Your task to perform on an android device: Empty the shopping cart on costco. Add razer blade to the cart on costco Image 0: 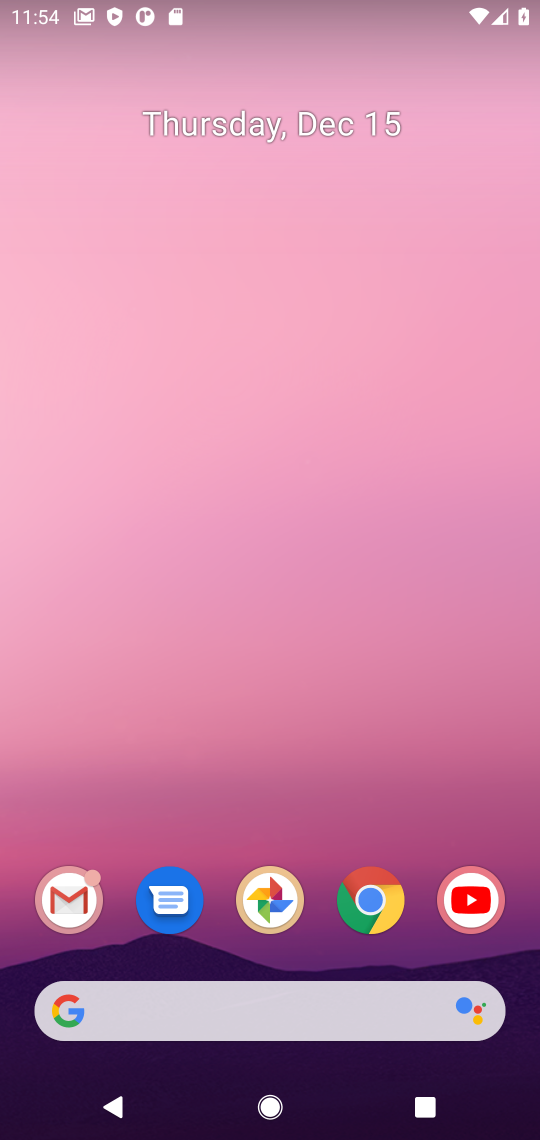
Step 0: click (372, 896)
Your task to perform on an android device: Empty the shopping cart on costco. Add razer blade to the cart on costco Image 1: 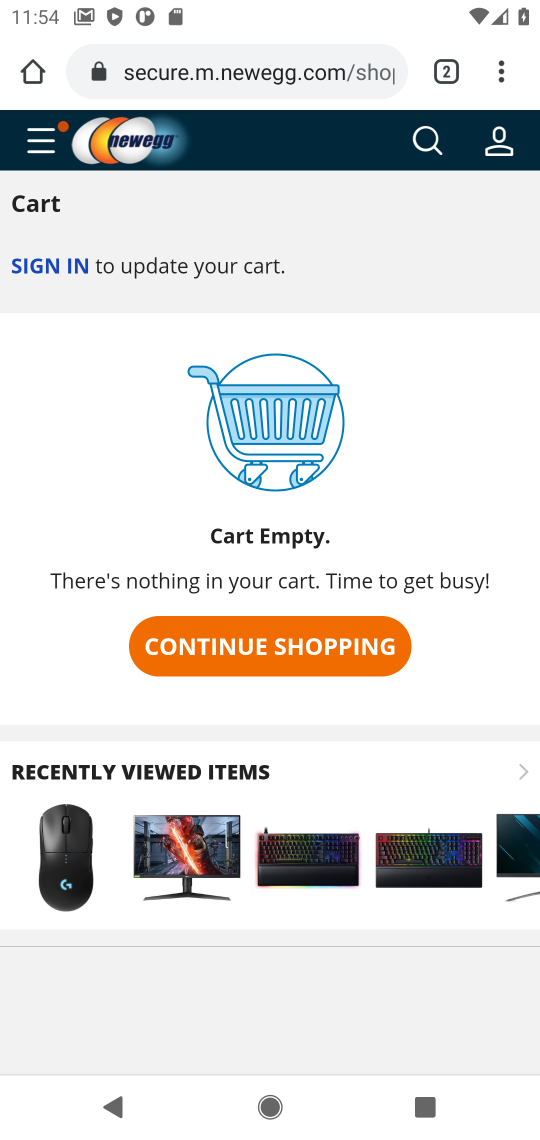
Step 1: click (24, 62)
Your task to perform on an android device: Empty the shopping cart on costco. Add razer blade to the cart on costco Image 2: 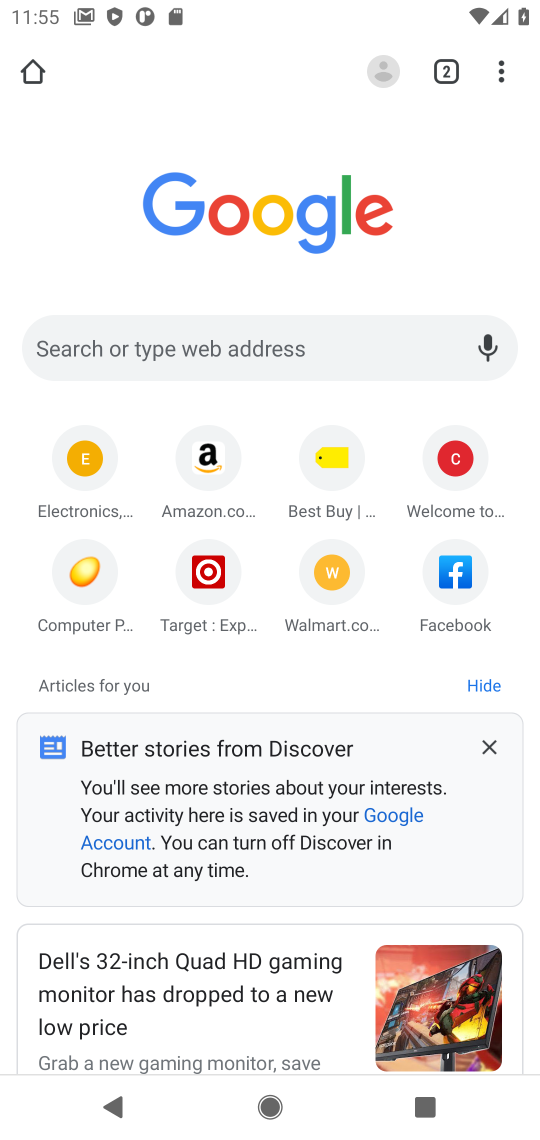
Step 2: click (263, 334)
Your task to perform on an android device: Empty the shopping cart on costco. Add razer blade to the cart on costco Image 3: 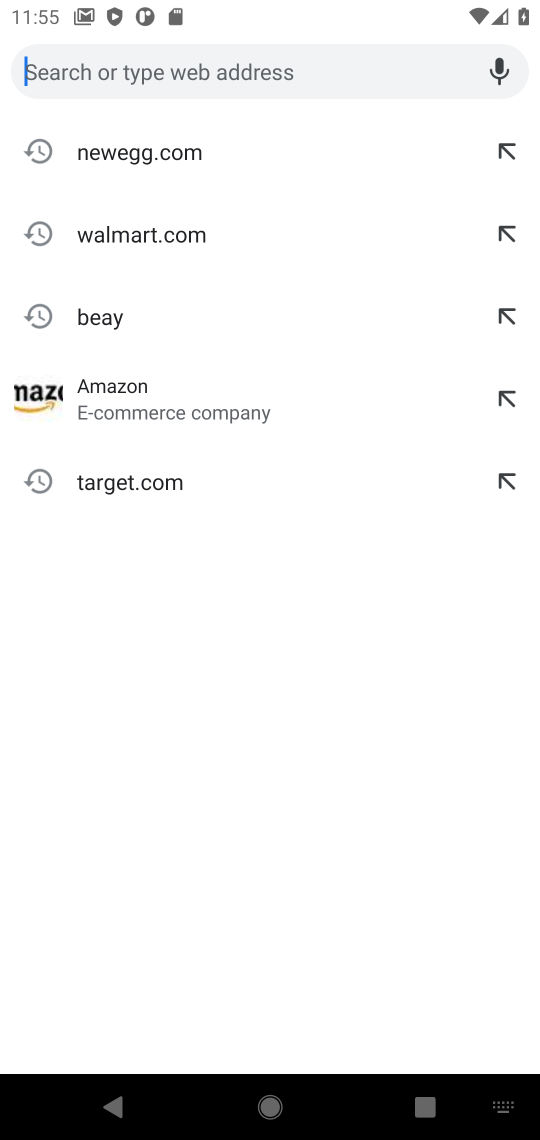
Step 3: press enter
Your task to perform on an android device: Empty the shopping cart on costco. Add razer blade to the cart on costco Image 4: 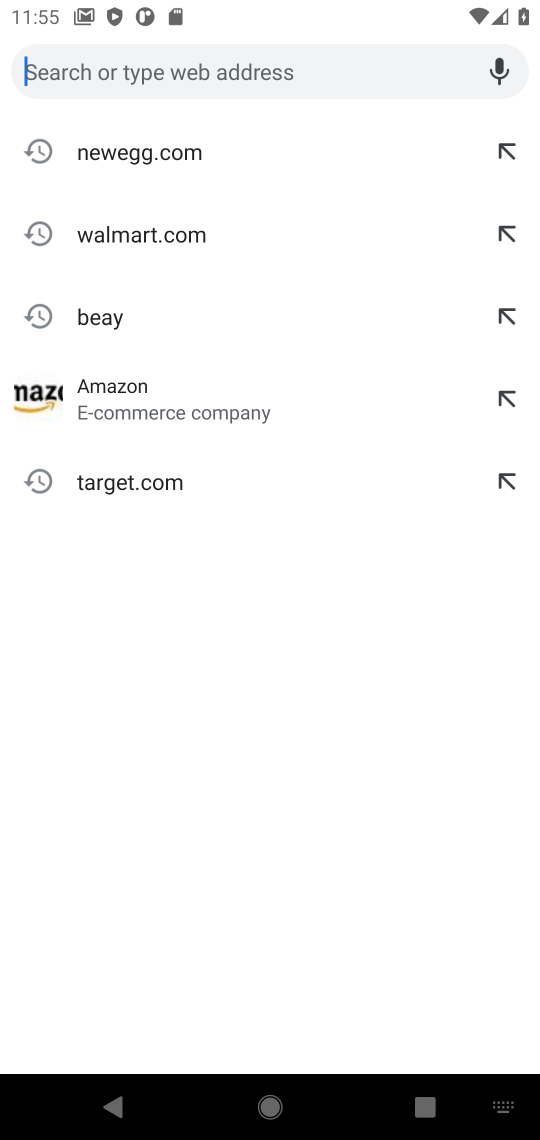
Step 4: type "costco"
Your task to perform on an android device: Empty the shopping cart on costco. Add razer blade to the cart on costco Image 5: 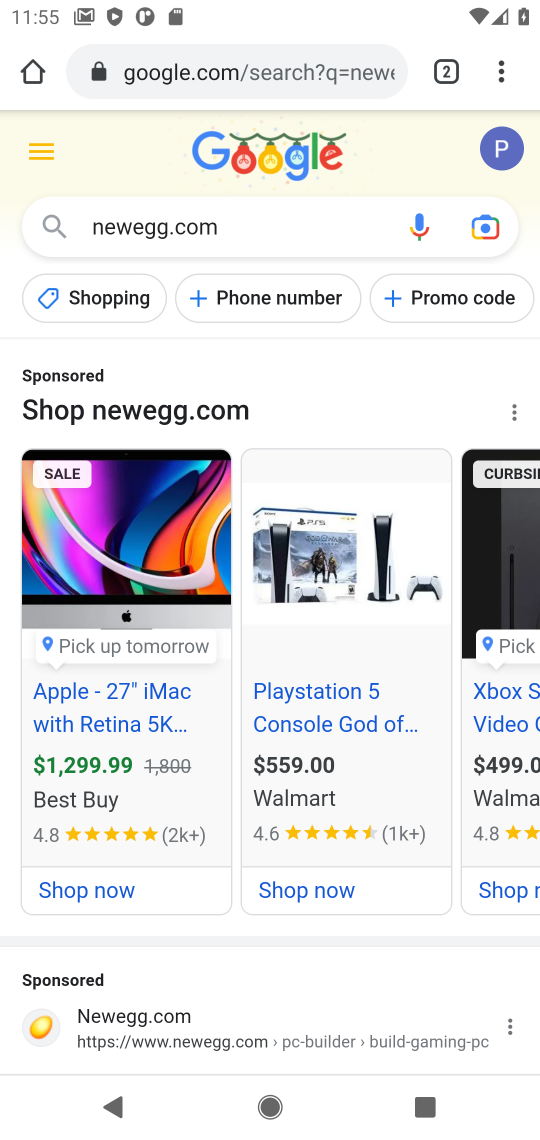
Step 5: click (203, 57)
Your task to perform on an android device: Empty the shopping cart on costco. Add razer blade to the cart on costco Image 6: 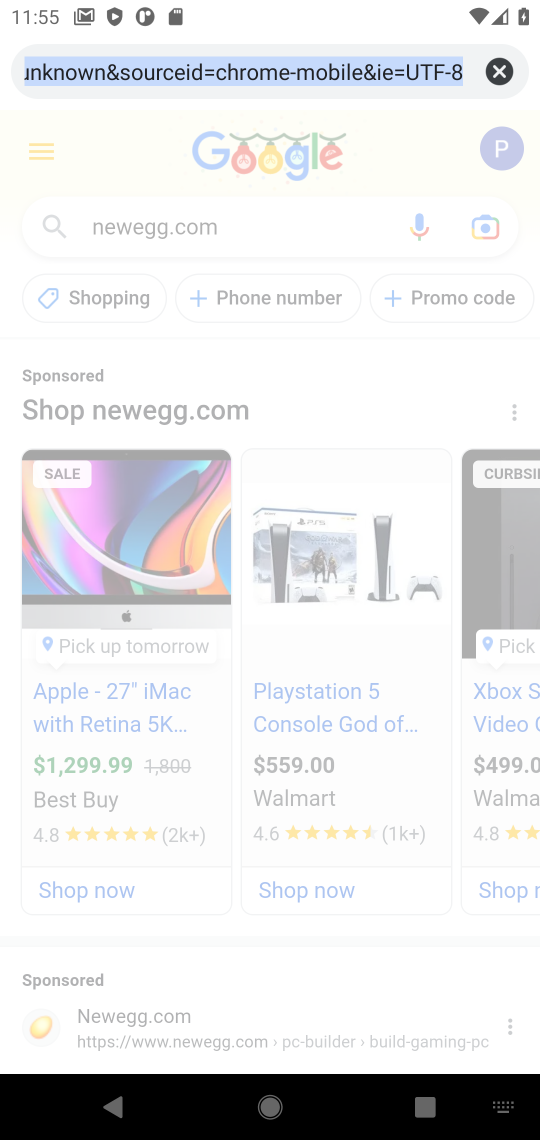
Step 6: press enter
Your task to perform on an android device: Empty the shopping cart on costco. Add razer blade to the cart on costco Image 7: 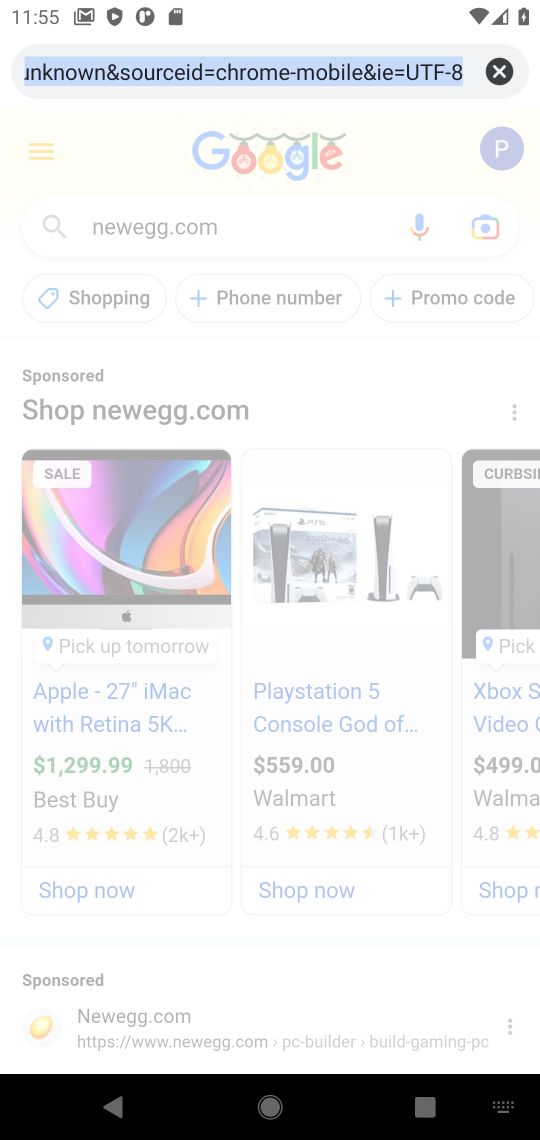
Step 7: type "costco"
Your task to perform on an android device: Empty the shopping cart on costco. Add razer blade to the cart on costco Image 8: 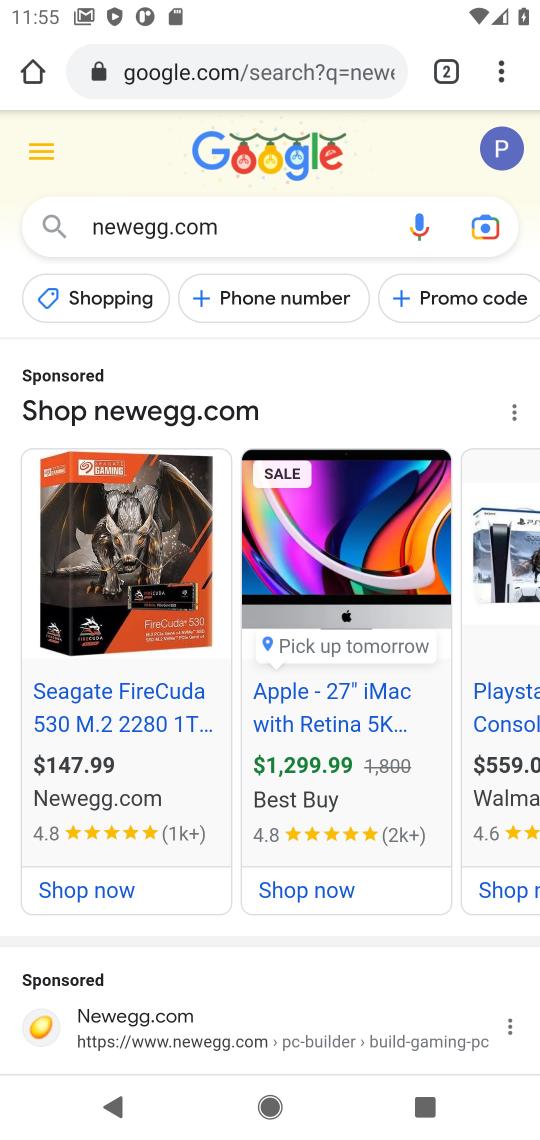
Step 8: click (208, 62)
Your task to perform on an android device: Empty the shopping cart on costco. Add razer blade to the cart on costco Image 9: 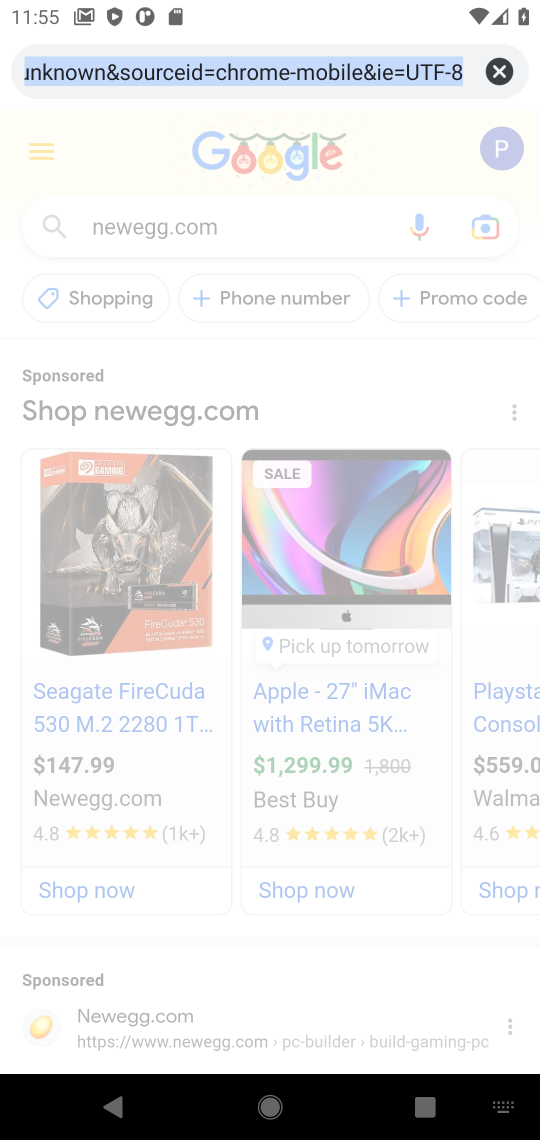
Step 9: click (505, 61)
Your task to perform on an android device: Empty the shopping cart on costco. Add razer blade to the cart on costco Image 10: 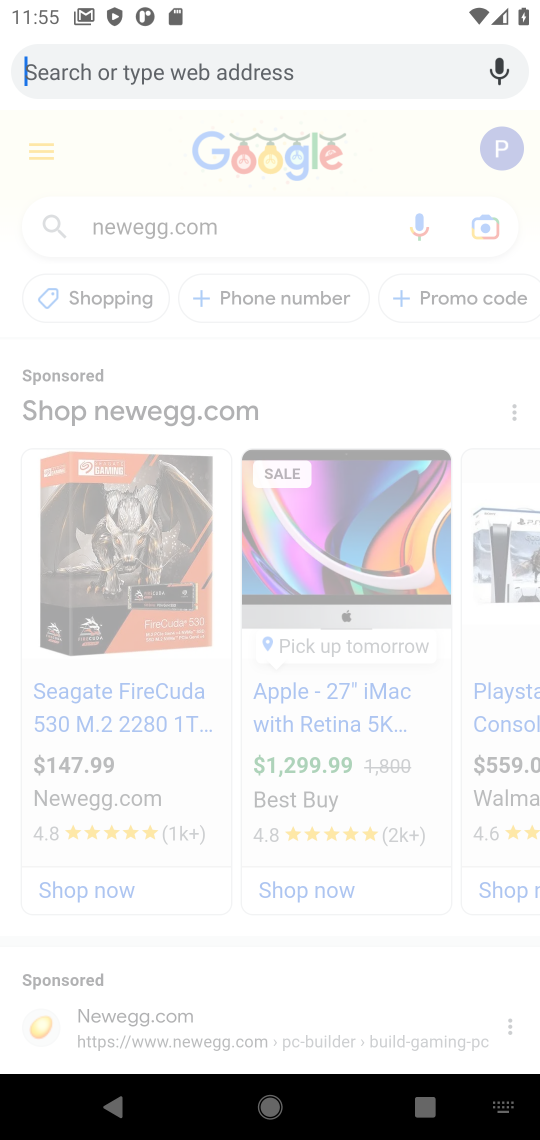
Step 10: press enter
Your task to perform on an android device: Empty the shopping cart on costco. Add razer blade to the cart on costco Image 11: 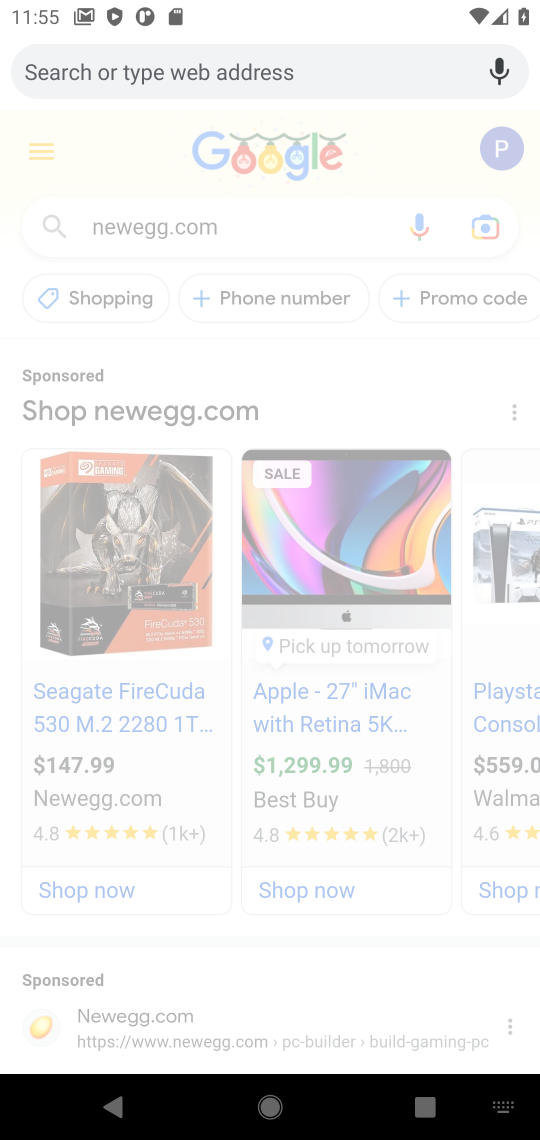
Step 11: type "costco"
Your task to perform on an android device: Empty the shopping cart on costco. Add razer blade to the cart on costco Image 12: 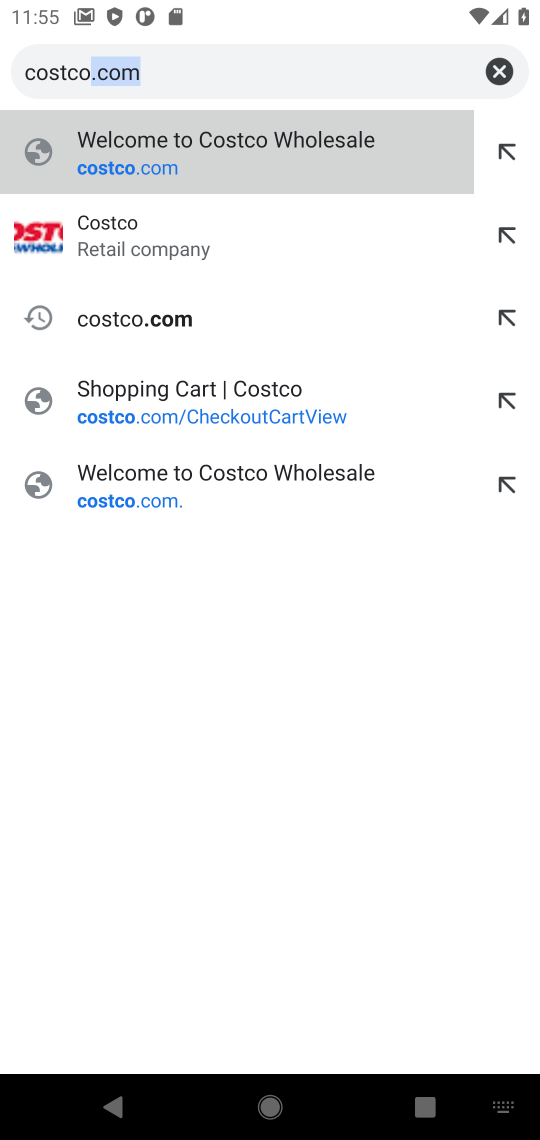
Step 12: click (345, 70)
Your task to perform on an android device: Empty the shopping cart on costco. Add razer blade to the cart on costco Image 13: 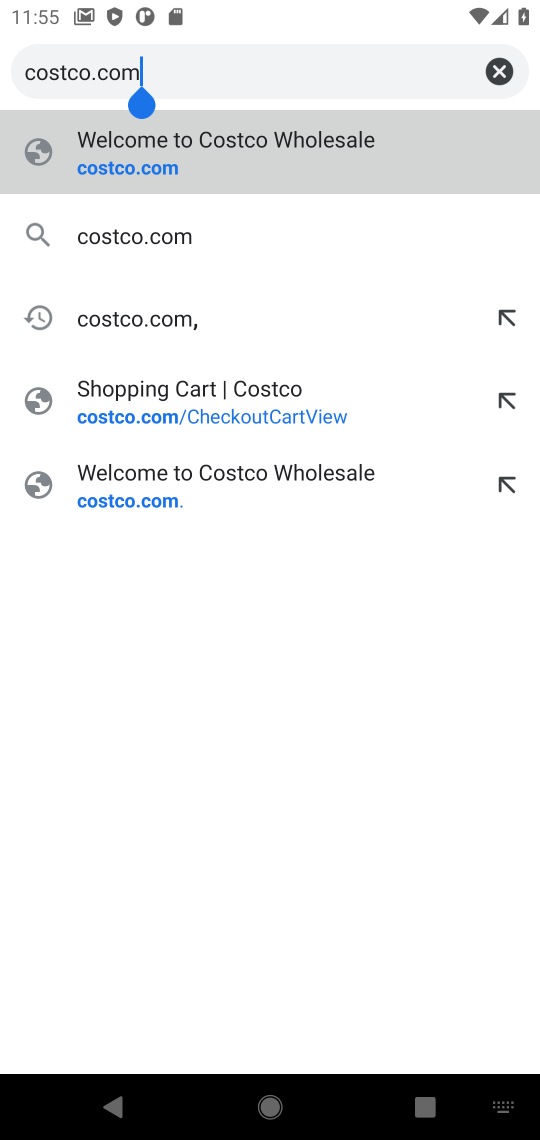
Step 13: click (159, 230)
Your task to perform on an android device: Empty the shopping cart on costco. Add razer blade to the cart on costco Image 14: 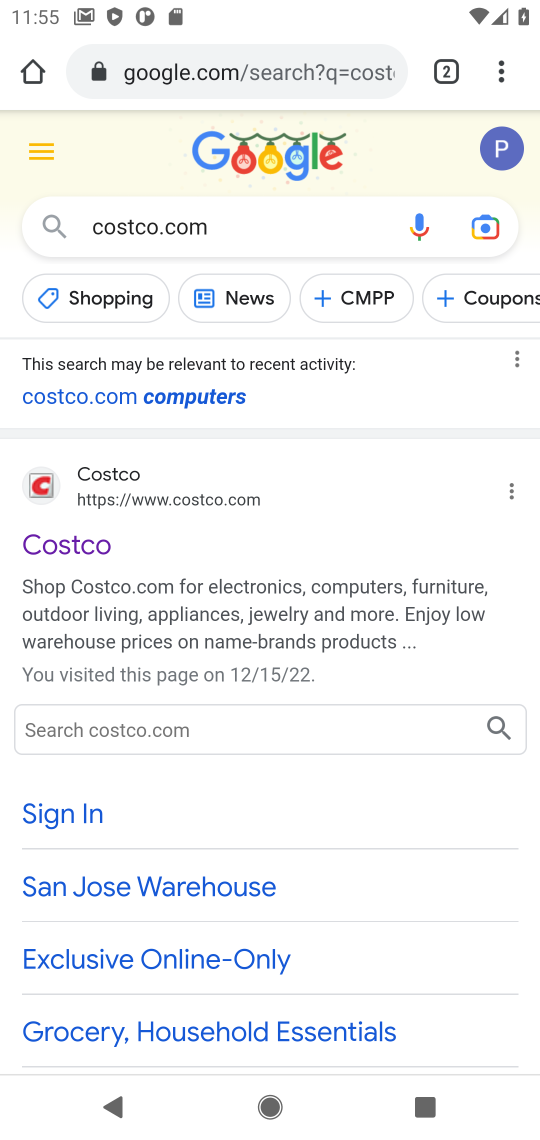
Step 14: click (197, 489)
Your task to perform on an android device: Empty the shopping cart on costco. Add razer blade to the cart on costco Image 15: 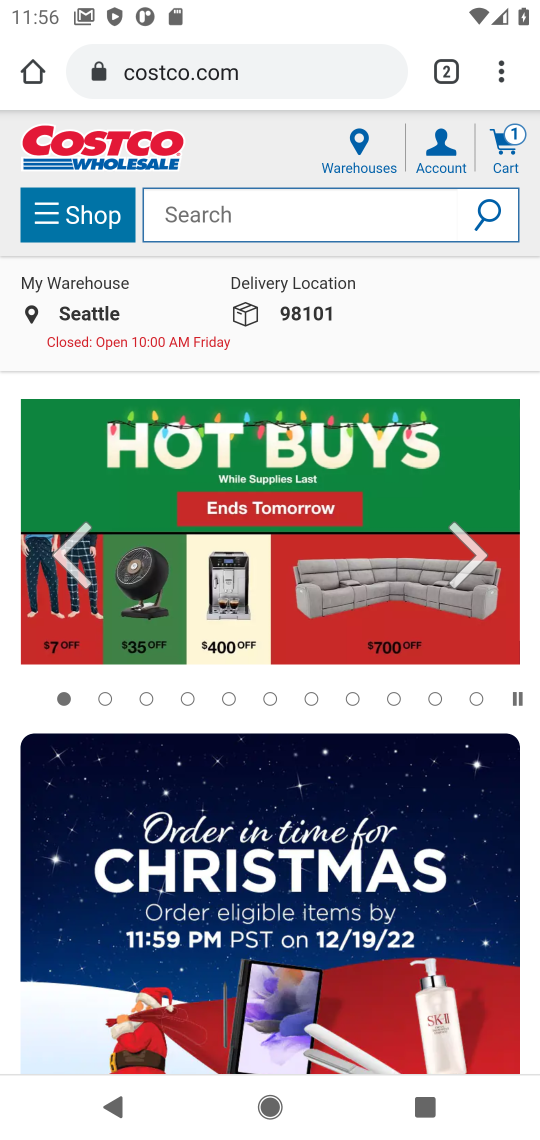
Step 15: click (512, 145)
Your task to perform on an android device: Empty the shopping cart on costco. Add razer blade to the cart on costco Image 16: 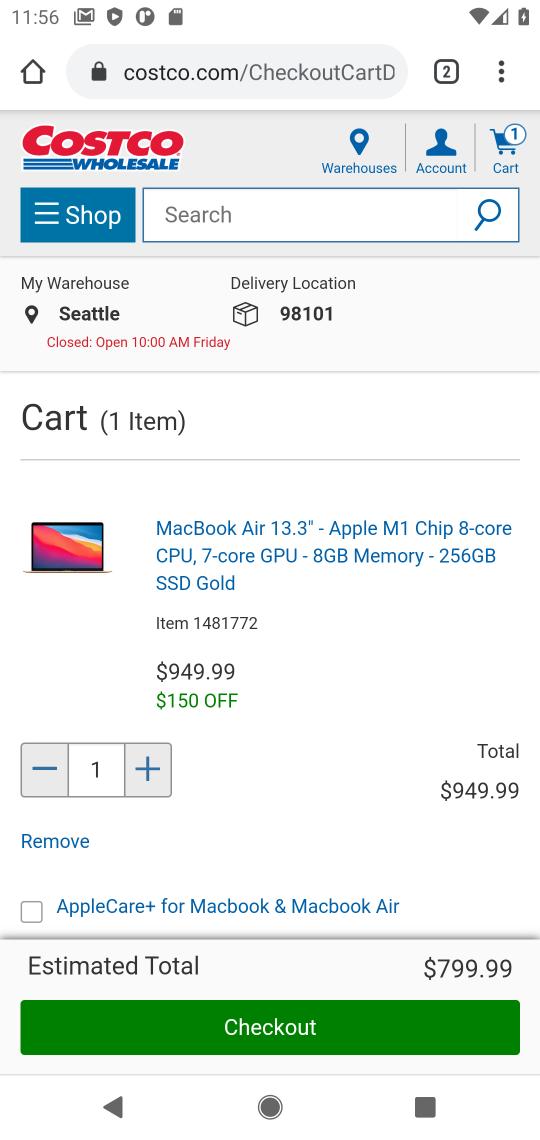
Step 16: click (56, 840)
Your task to perform on an android device: Empty the shopping cart on costco. Add razer blade to the cart on costco Image 17: 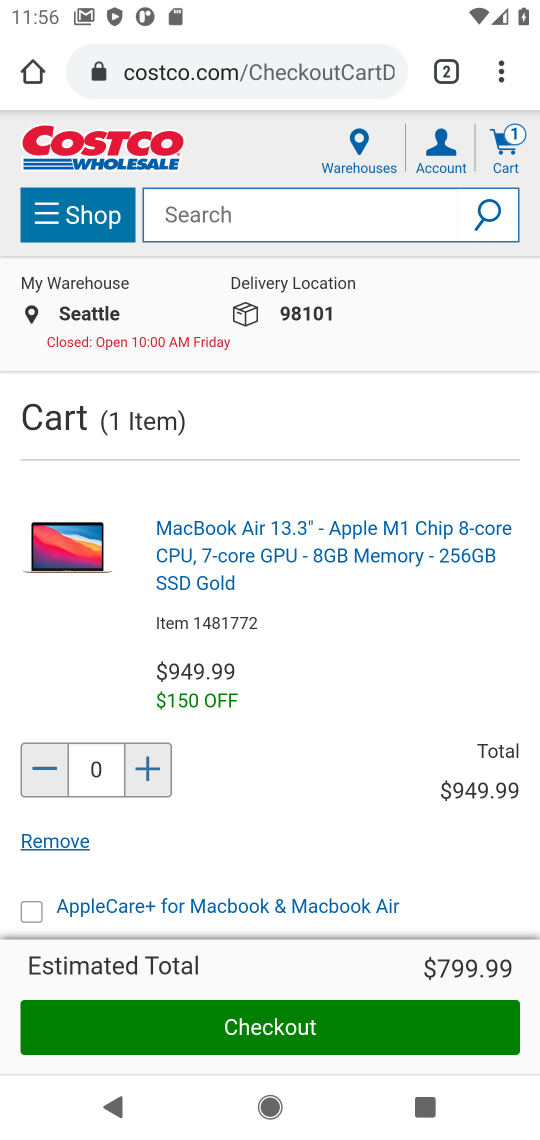
Step 17: drag from (282, 798) to (323, 569)
Your task to perform on an android device: Empty the shopping cart on costco. Add razer blade to the cart on costco Image 18: 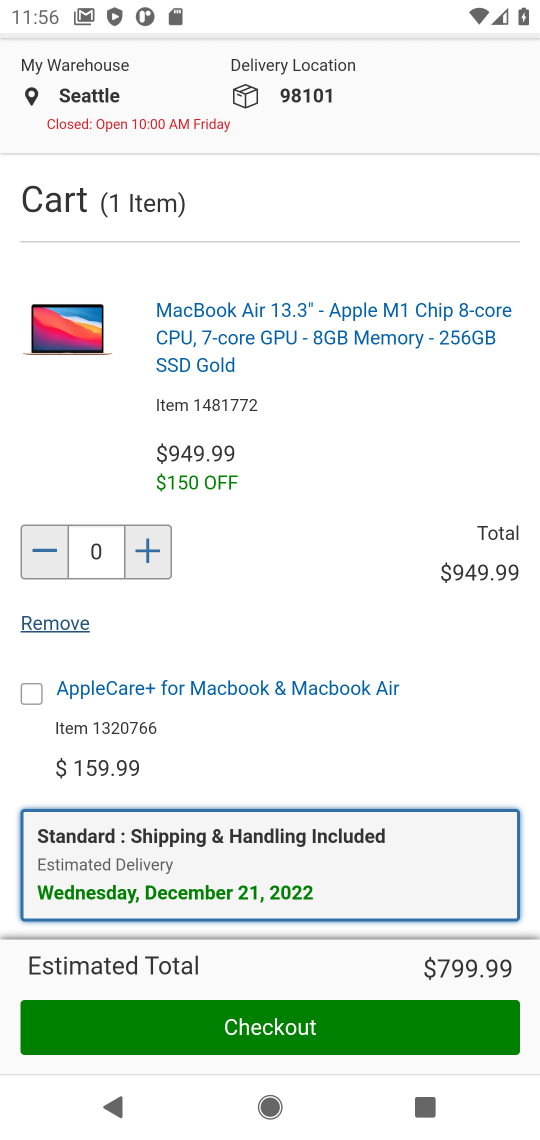
Step 18: drag from (433, 735) to (416, 460)
Your task to perform on an android device: Empty the shopping cart on costco. Add razer blade to the cart on costco Image 19: 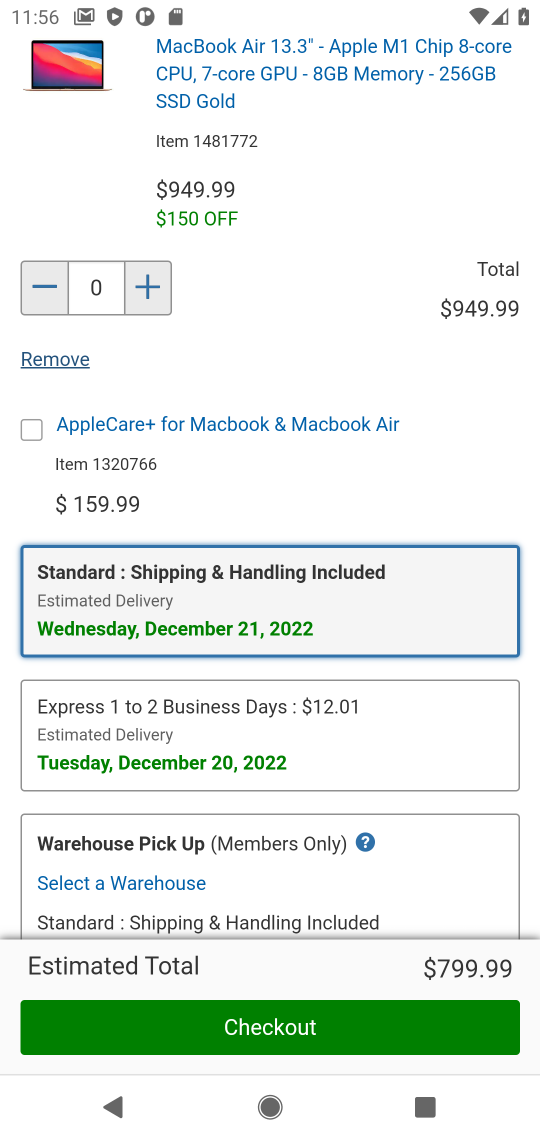
Step 19: drag from (479, 757) to (488, 453)
Your task to perform on an android device: Empty the shopping cart on costco. Add razer blade to the cart on costco Image 20: 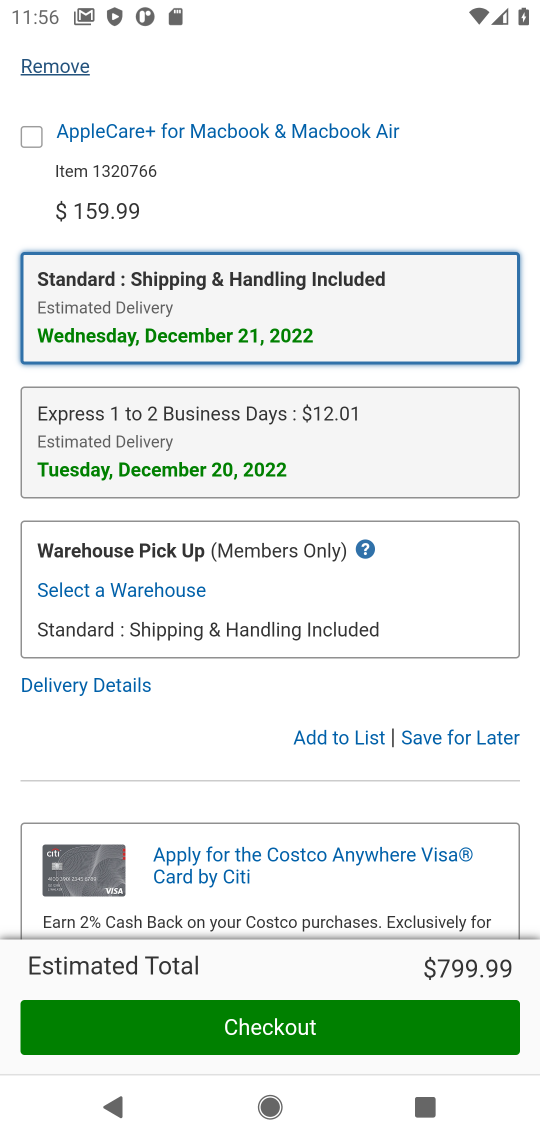
Step 20: click (488, 730)
Your task to perform on an android device: Empty the shopping cart on costco. Add razer blade to the cart on costco Image 21: 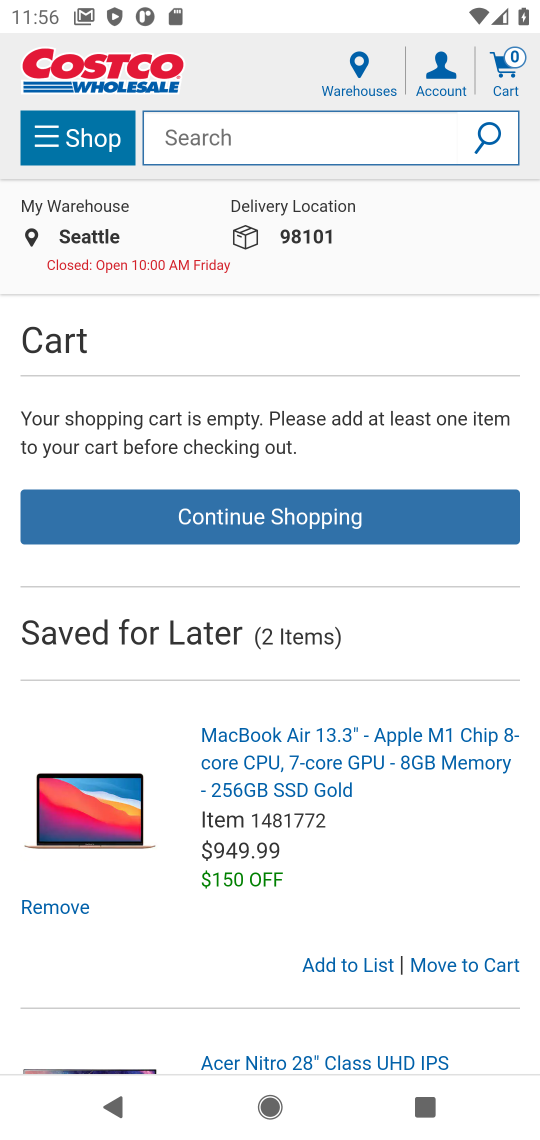
Step 21: click (390, 138)
Your task to perform on an android device: Empty the shopping cart on costco. Add razer blade to the cart on costco Image 22: 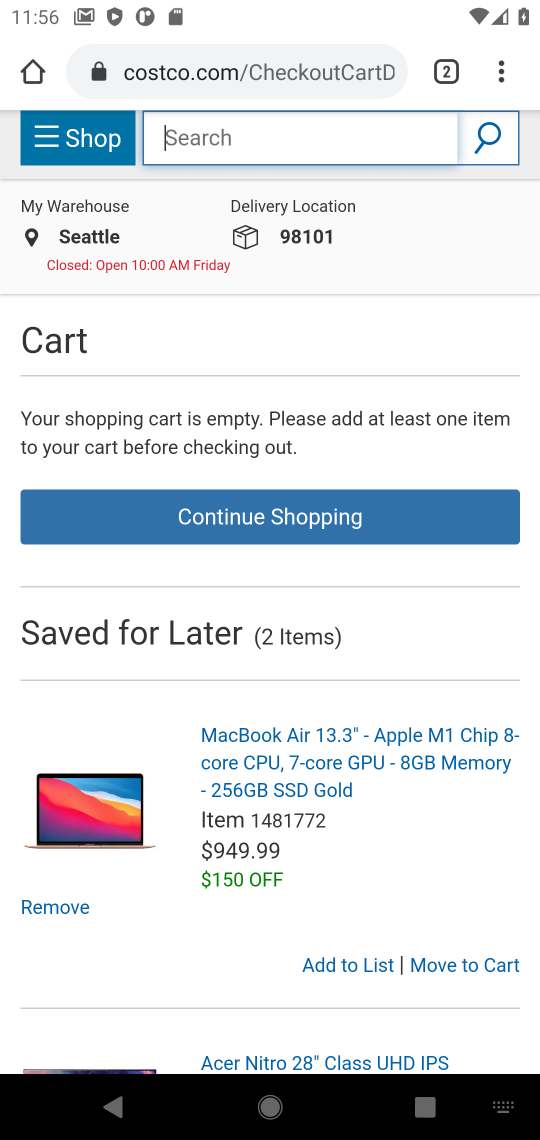
Step 22: press enter
Your task to perform on an android device: Empty the shopping cart on costco. Add razer blade to the cart on costco Image 23: 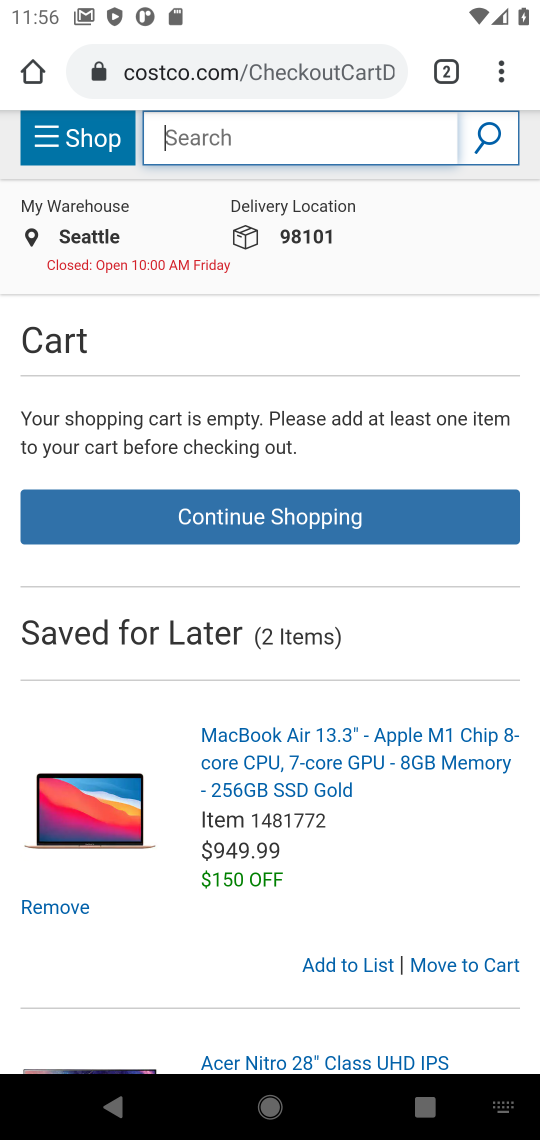
Step 23: type "razer blade"
Your task to perform on an android device: Empty the shopping cart on costco. Add razer blade to the cart on costco Image 24: 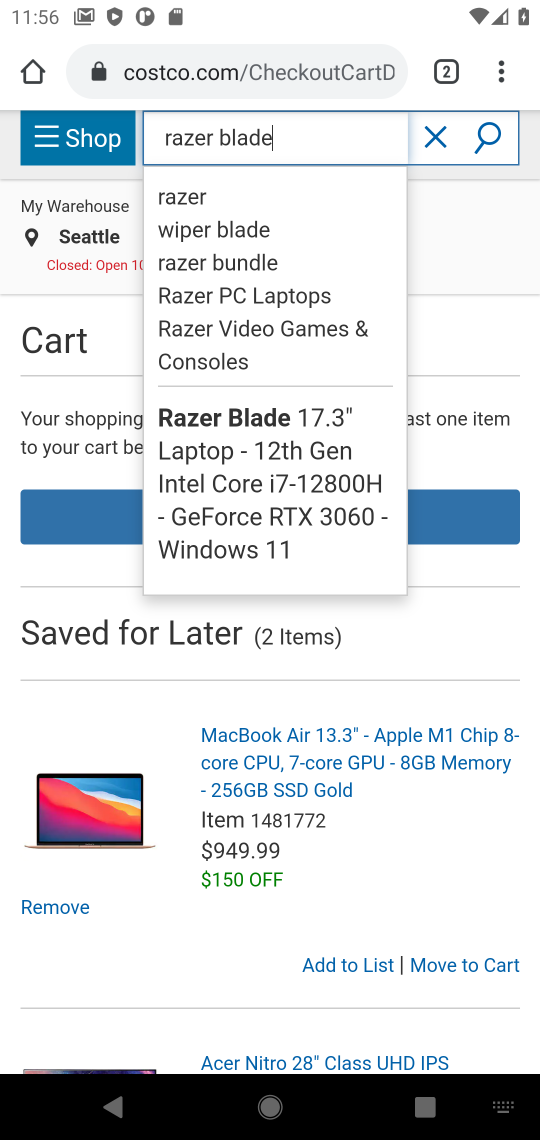
Step 24: click (496, 137)
Your task to perform on an android device: Empty the shopping cart on costco. Add razer blade to the cart on costco Image 25: 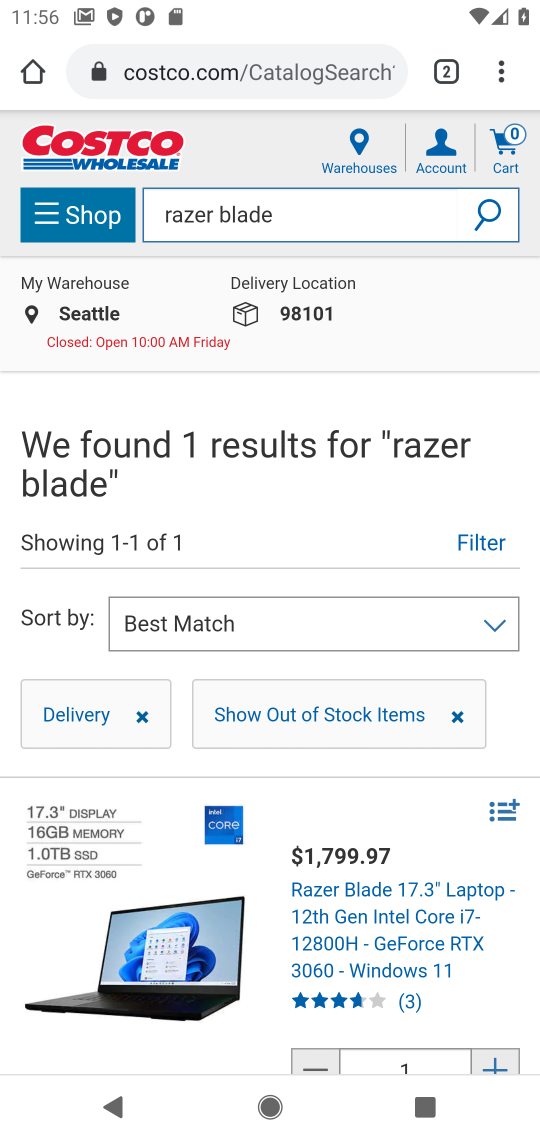
Step 25: click (190, 930)
Your task to perform on an android device: Empty the shopping cart on costco. Add razer blade to the cart on costco Image 26: 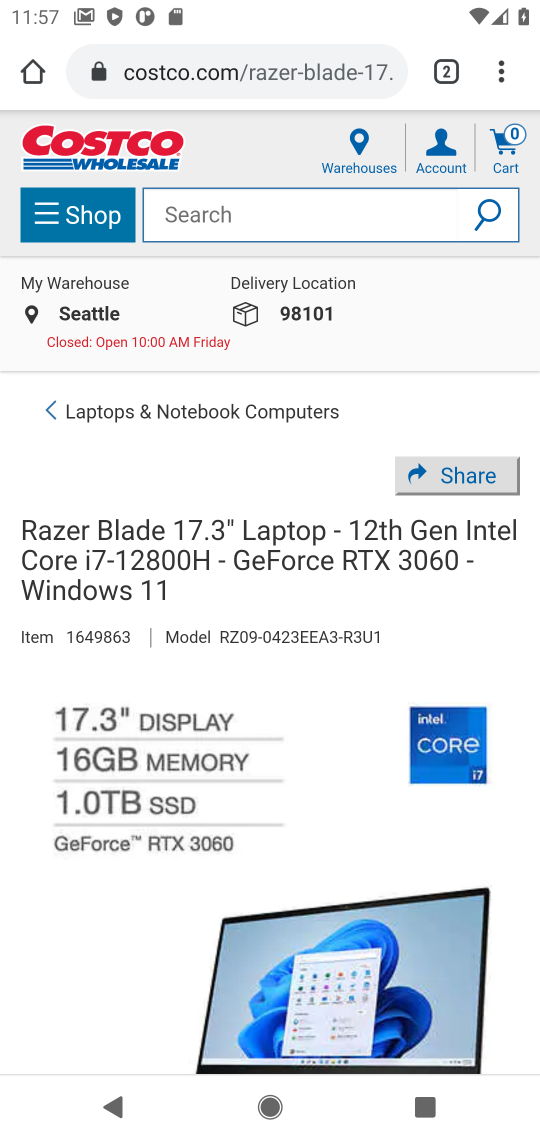
Step 26: drag from (438, 1094) to (452, 594)
Your task to perform on an android device: Empty the shopping cart on costco. Add razer blade to the cart on costco Image 27: 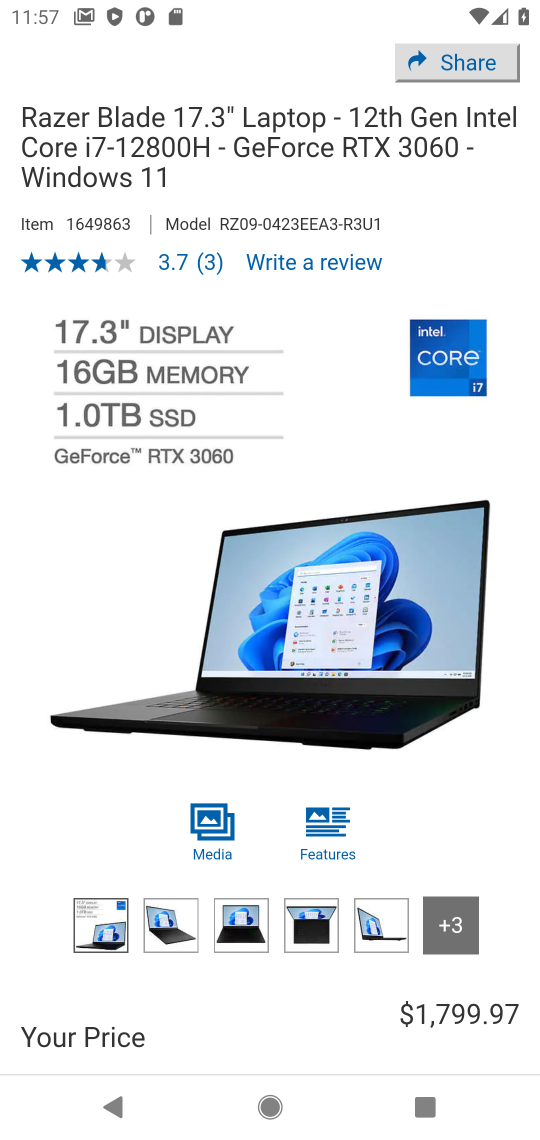
Step 27: drag from (408, 779) to (382, 152)
Your task to perform on an android device: Empty the shopping cart on costco. Add razer blade to the cart on costco Image 28: 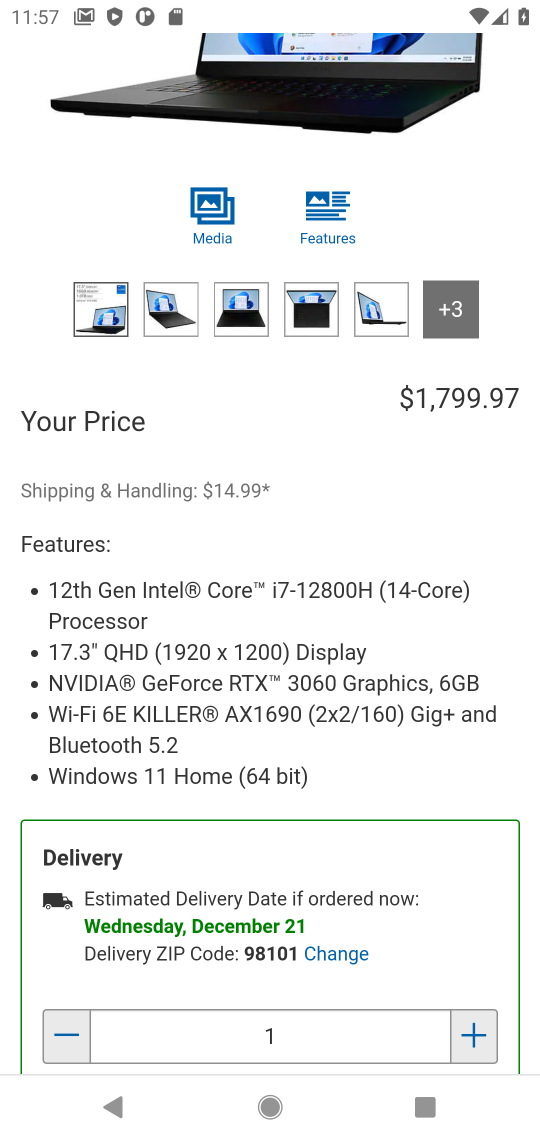
Step 28: drag from (460, 918) to (408, 260)
Your task to perform on an android device: Empty the shopping cart on costco. Add razer blade to the cart on costco Image 29: 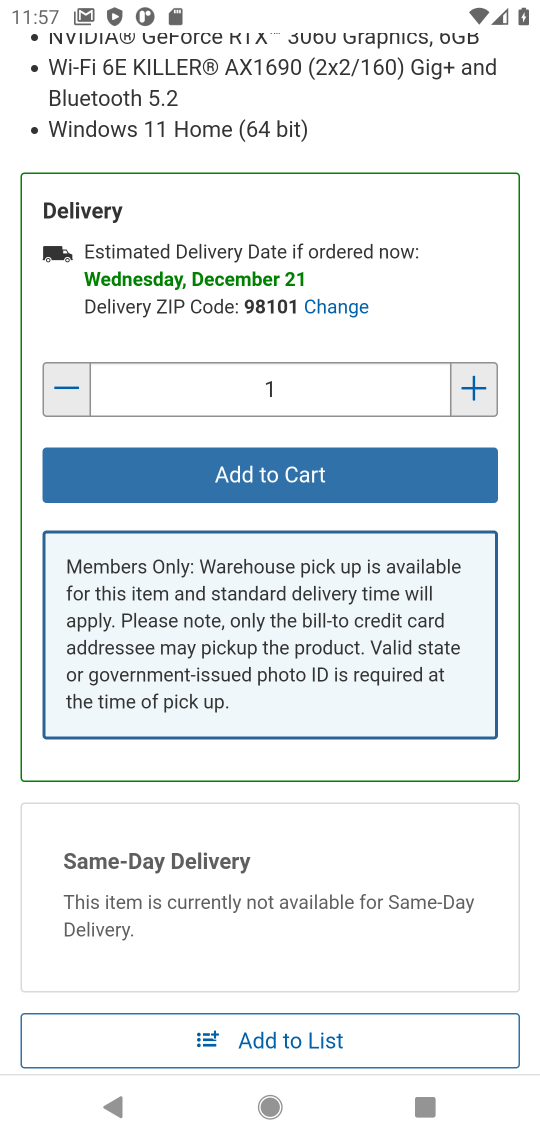
Step 29: click (269, 473)
Your task to perform on an android device: Empty the shopping cart on costco. Add razer blade to the cart on costco Image 30: 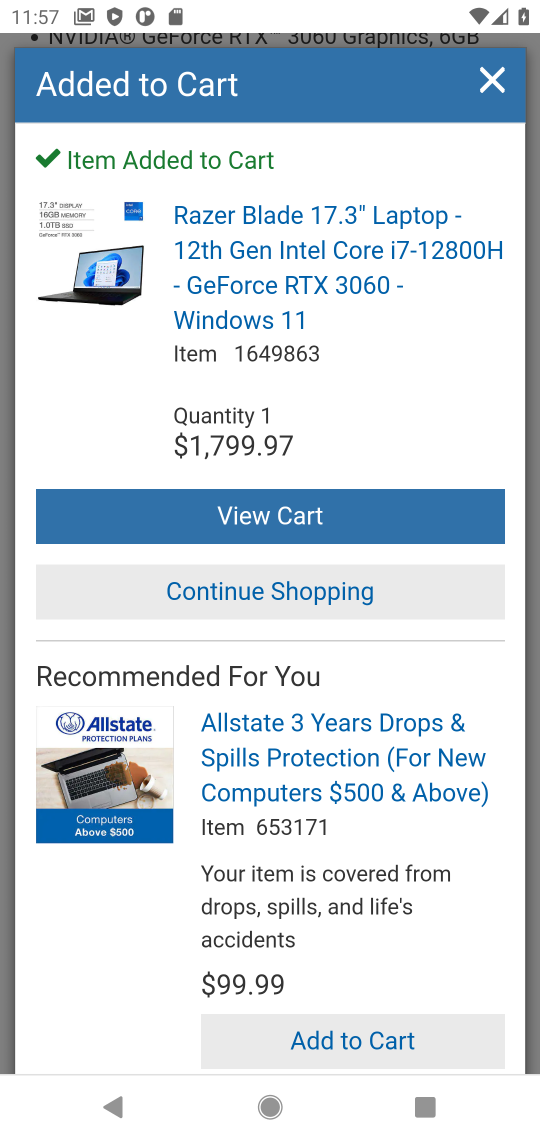
Step 30: task complete